Your task to perform on an android device: Open Yahoo.com Image 0: 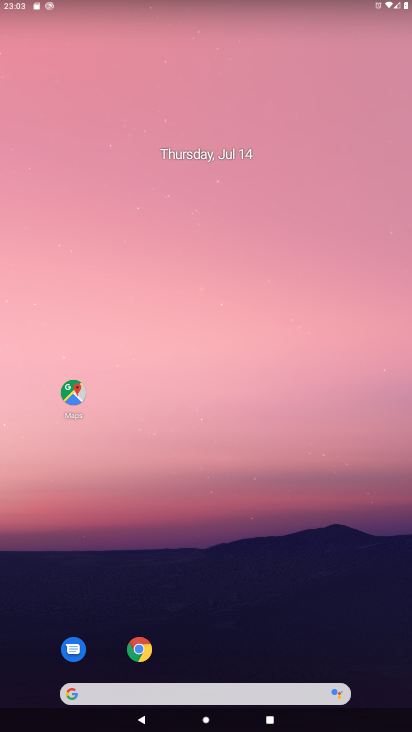
Step 0: click (194, 698)
Your task to perform on an android device: Open Yahoo.com Image 1: 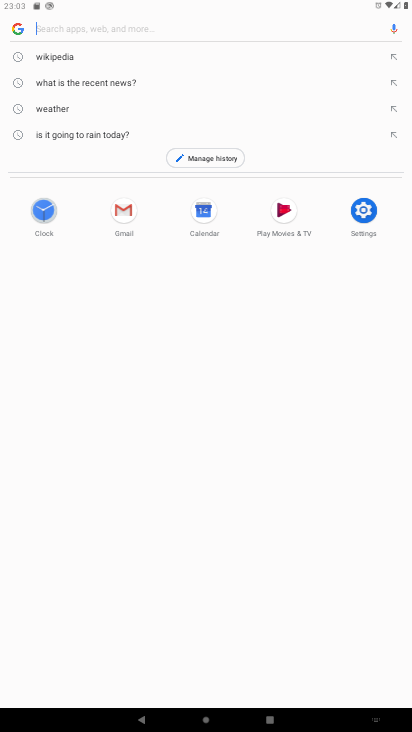
Step 1: type "yahoo.com"
Your task to perform on an android device: Open Yahoo.com Image 2: 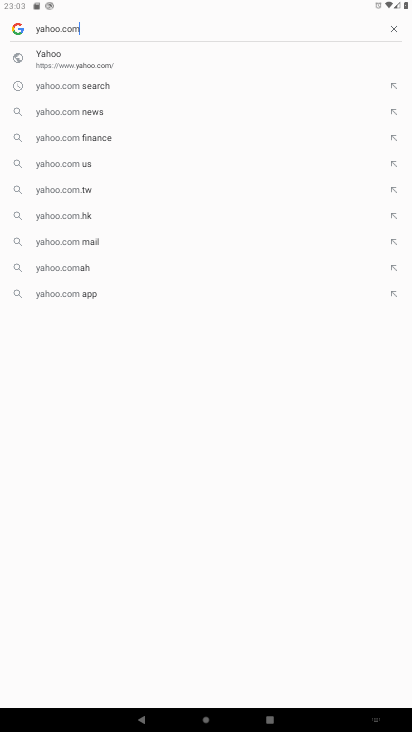
Step 2: click (189, 63)
Your task to perform on an android device: Open Yahoo.com Image 3: 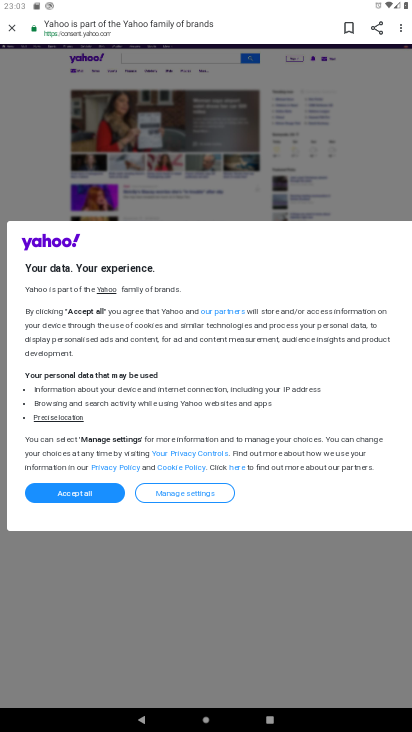
Step 3: task complete